Your task to perform on an android device: check the backup settings in the google photos Image 0: 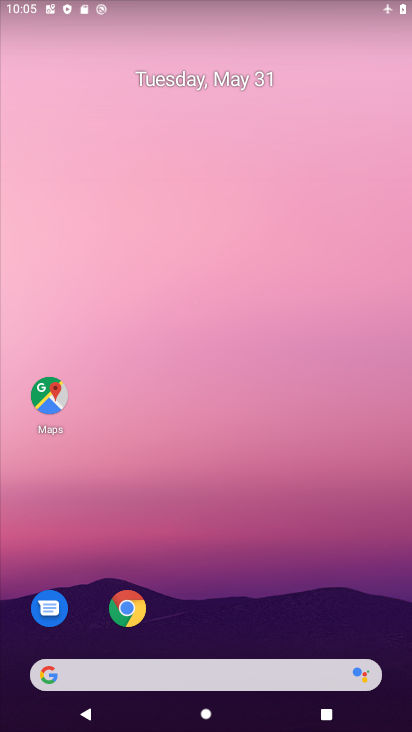
Step 0: drag from (214, 648) to (214, 13)
Your task to perform on an android device: check the backup settings in the google photos Image 1: 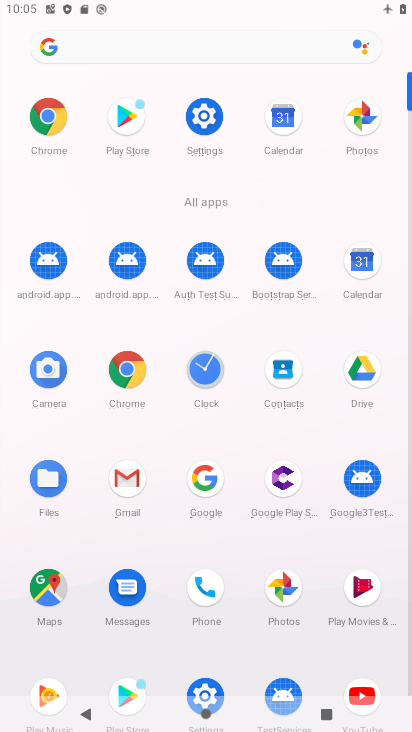
Step 1: click (294, 597)
Your task to perform on an android device: check the backup settings in the google photos Image 2: 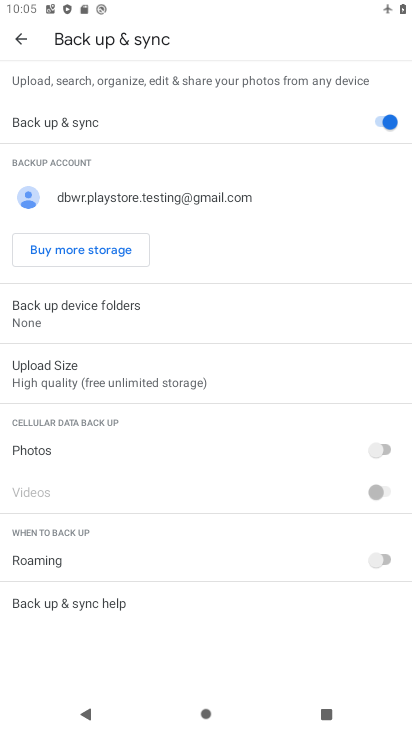
Step 2: click (101, 337)
Your task to perform on an android device: check the backup settings in the google photos Image 3: 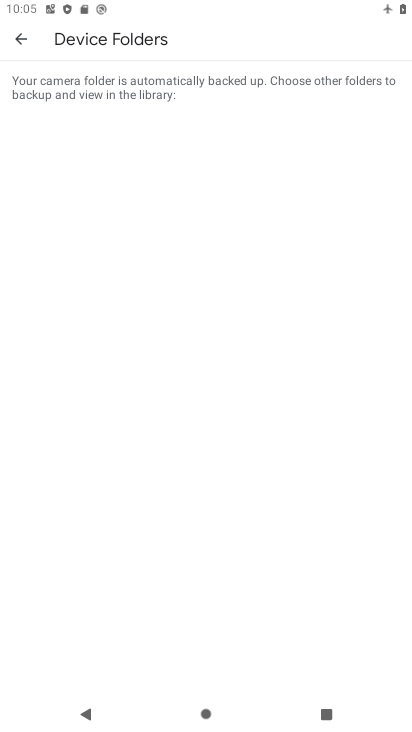
Step 3: click (21, 55)
Your task to perform on an android device: check the backup settings in the google photos Image 4: 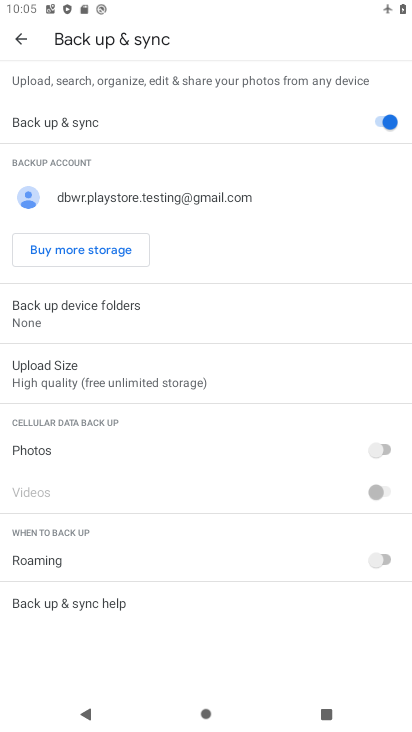
Step 4: task complete